Your task to perform on an android device: turn on the 12-hour format for clock Image 0: 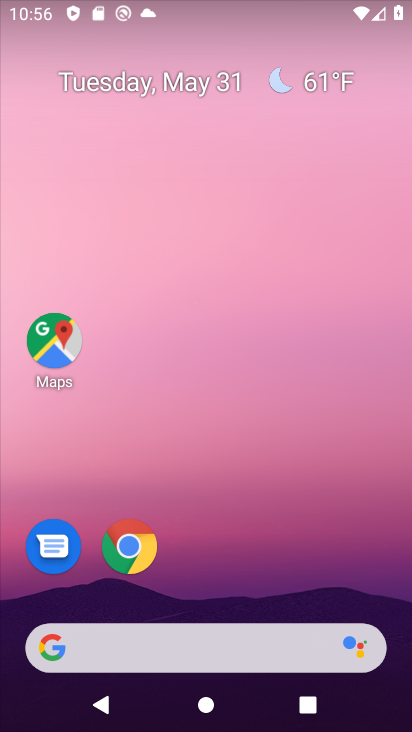
Step 0: drag from (242, 632) to (358, 502)
Your task to perform on an android device: turn on the 12-hour format for clock Image 1: 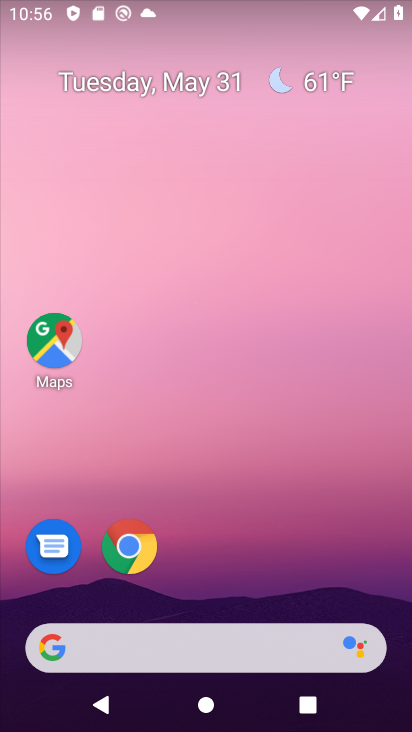
Step 1: drag from (212, 595) to (212, 24)
Your task to perform on an android device: turn on the 12-hour format for clock Image 2: 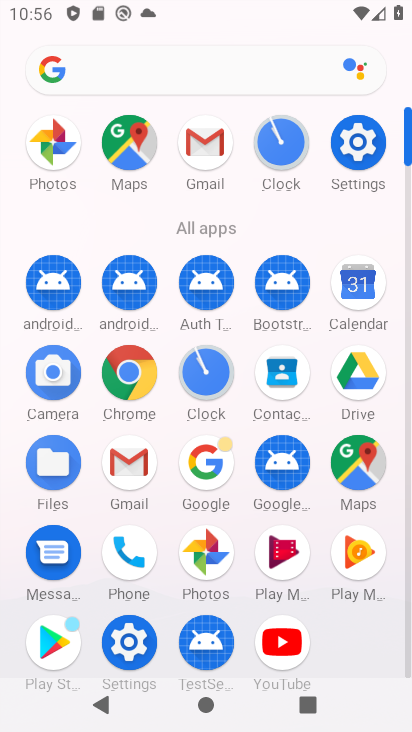
Step 2: click (210, 373)
Your task to perform on an android device: turn on the 12-hour format for clock Image 3: 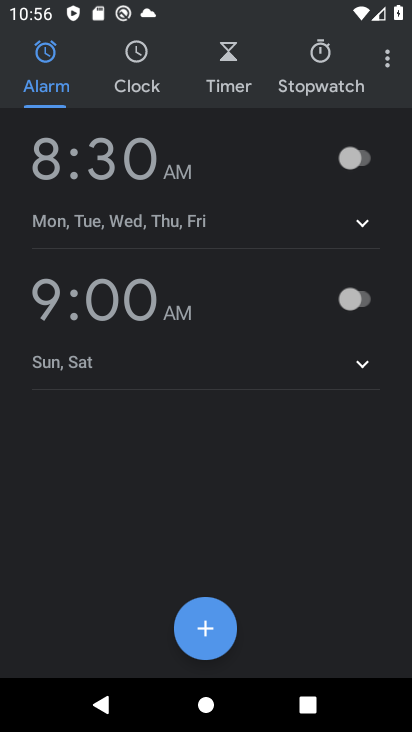
Step 3: click (375, 65)
Your task to perform on an android device: turn on the 12-hour format for clock Image 4: 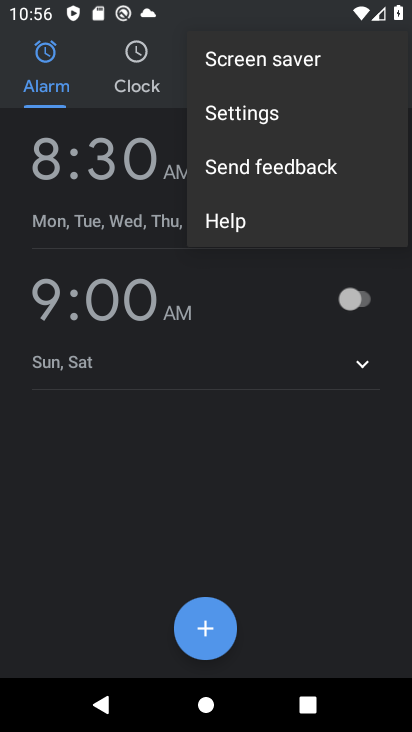
Step 4: click (266, 110)
Your task to perform on an android device: turn on the 12-hour format for clock Image 5: 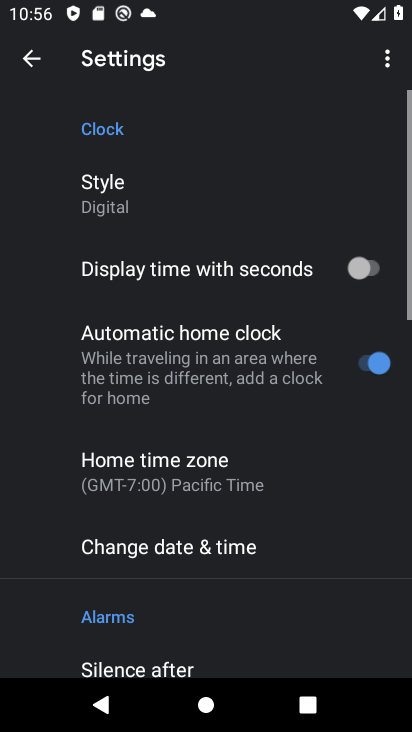
Step 5: click (197, 559)
Your task to perform on an android device: turn on the 12-hour format for clock Image 6: 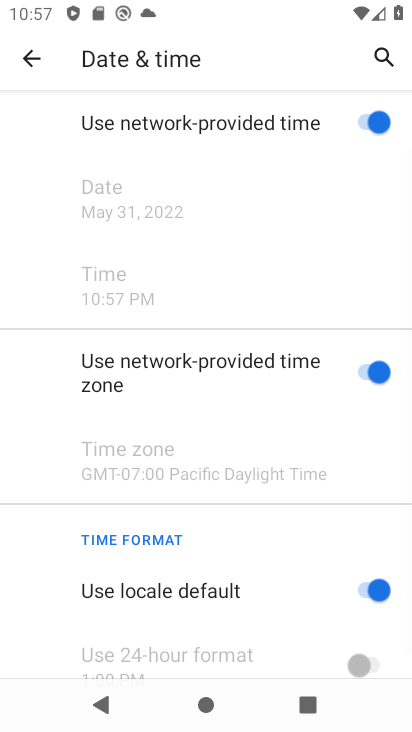
Step 6: task complete